Your task to perform on an android device: find which apps use the phone's location Image 0: 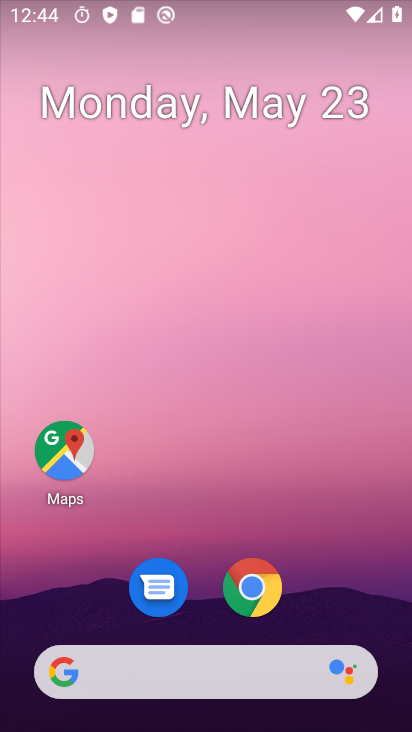
Step 0: click (260, 84)
Your task to perform on an android device: find which apps use the phone's location Image 1: 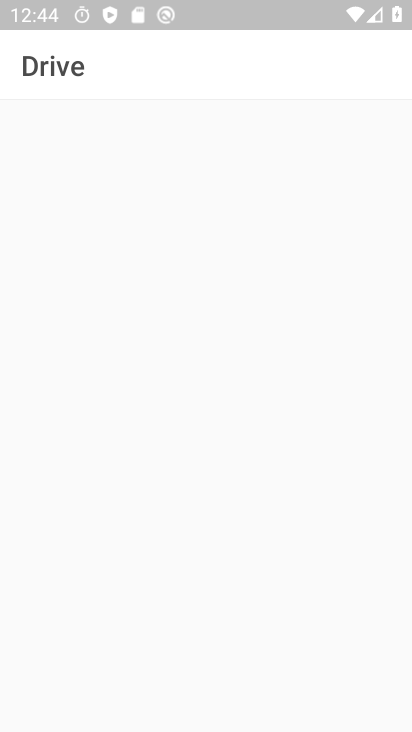
Step 1: press home button
Your task to perform on an android device: find which apps use the phone's location Image 2: 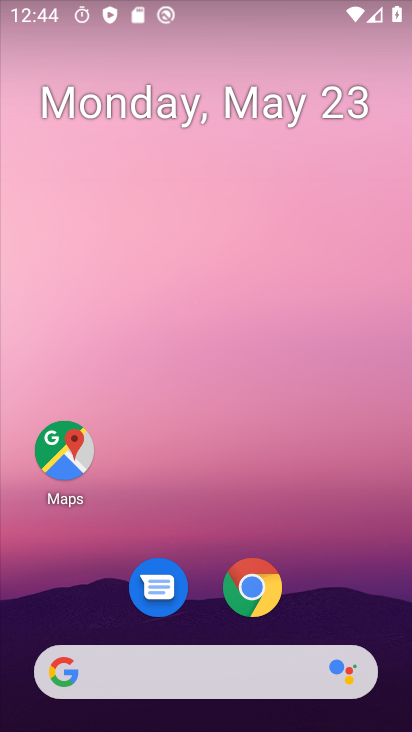
Step 2: drag from (114, 580) to (231, 25)
Your task to perform on an android device: find which apps use the phone's location Image 3: 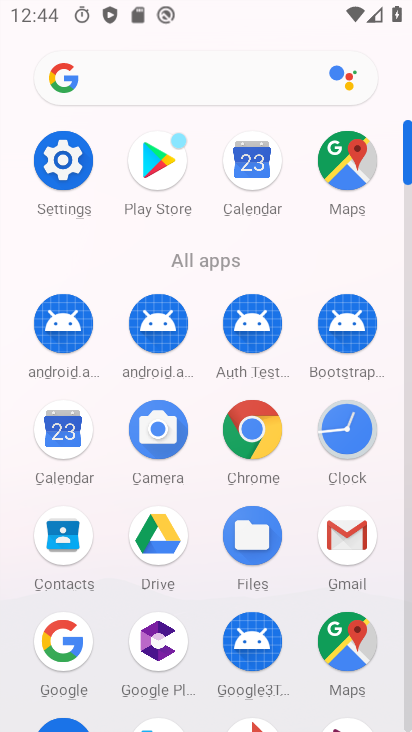
Step 3: click (60, 174)
Your task to perform on an android device: find which apps use the phone's location Image 4: 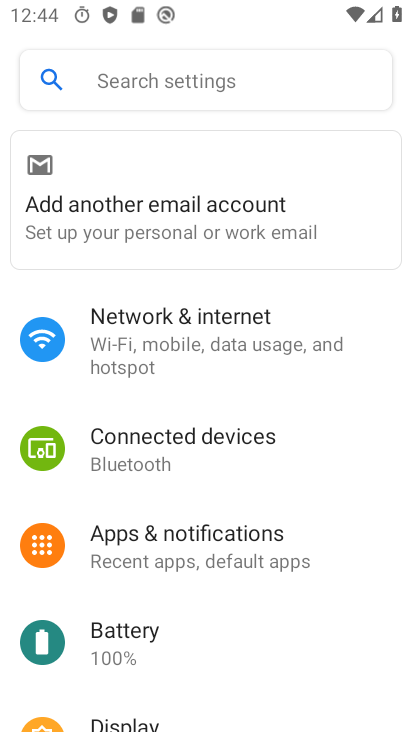
Step 4: drag from (176, 645) to (296, 53)
Your task to perform on an android device: find which apps use the phone's location Image 5: 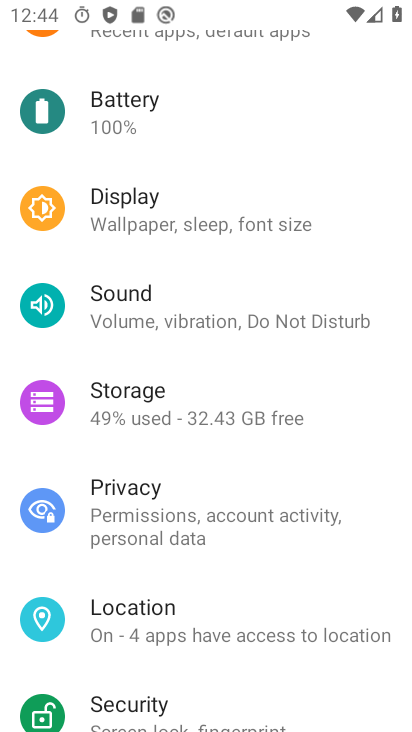
Step 5: click (147, 611)
Your task to perform on an android device: find which apps use the phone's location Image 6: 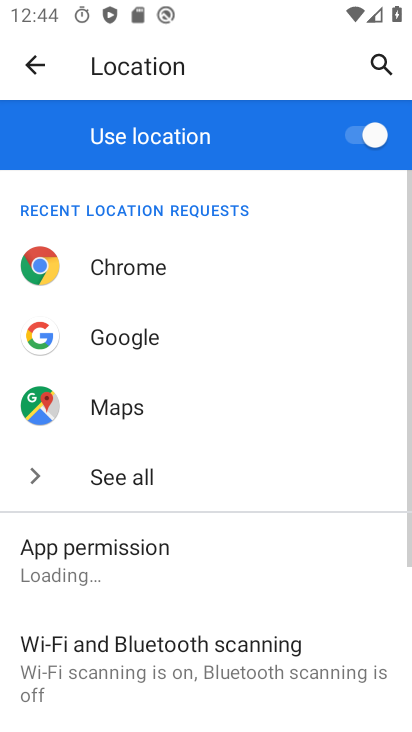
Step 6: click (117, 553)
Your task to perform on an android device: find which apps use the phone's location Image 7: 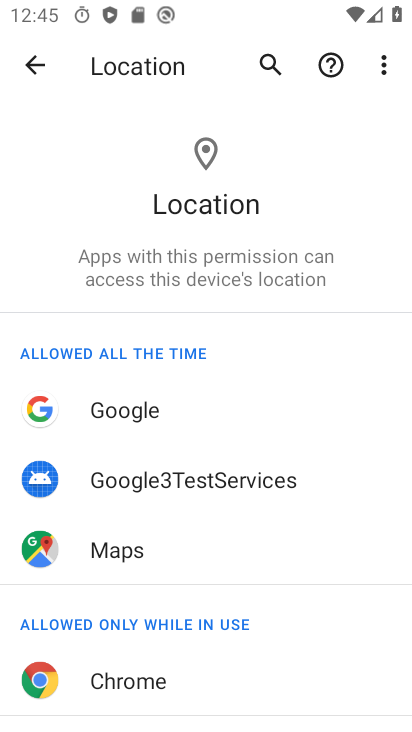
Step 7: task complete